Your task to perform on an android device: set the stopwatch Image 0: 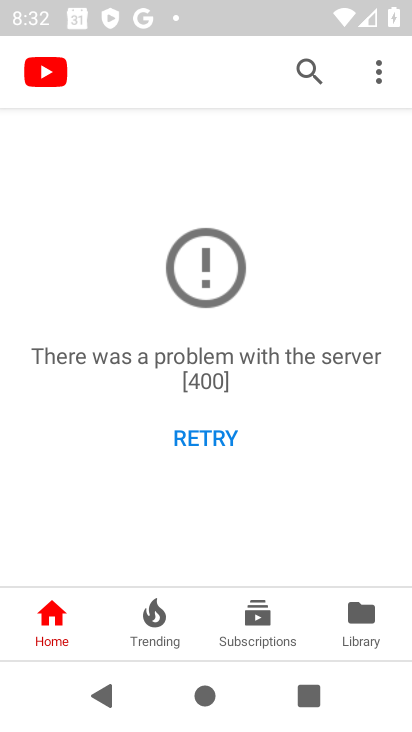
Step 0: press home button
Your task to perform on an android device: set the stopwatch Image 1: 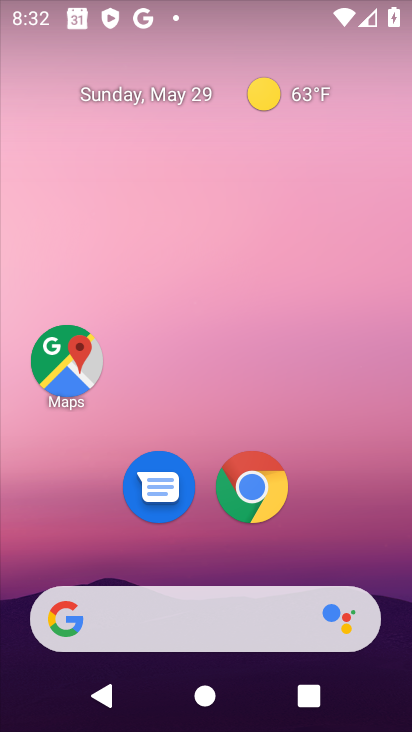
Step 1: drag from (319, 536) to (284, 103)
Your task to perform on an android device: set the stopwatch Image 2: 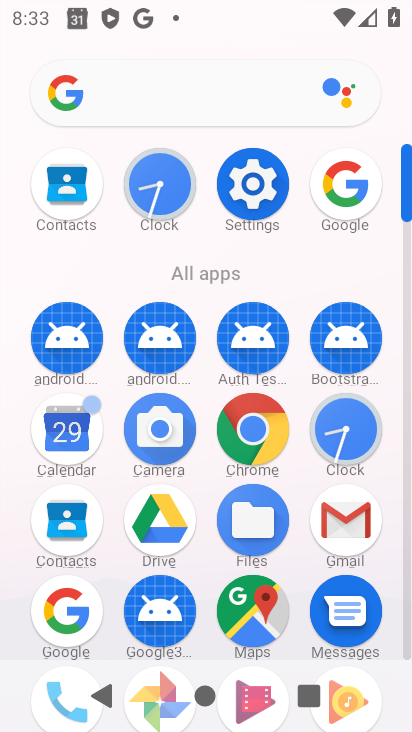
Step 2: click (162, 183)
Your task to perform on an android device: set the stopwatch Image 3: 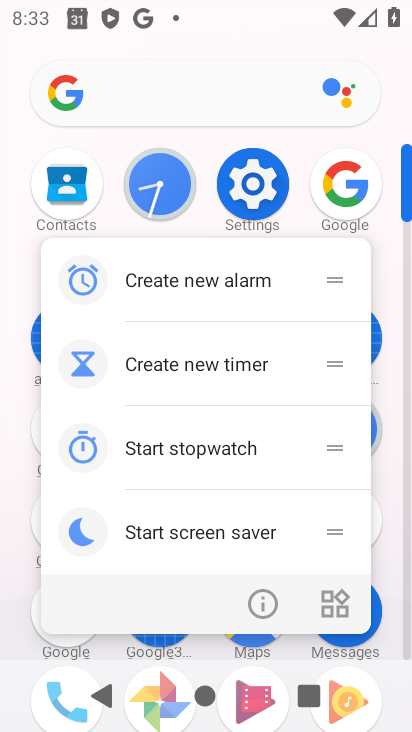
Step 3: click (161, 186)
Your task to perform on an android device: set the stopwatch Image 4: 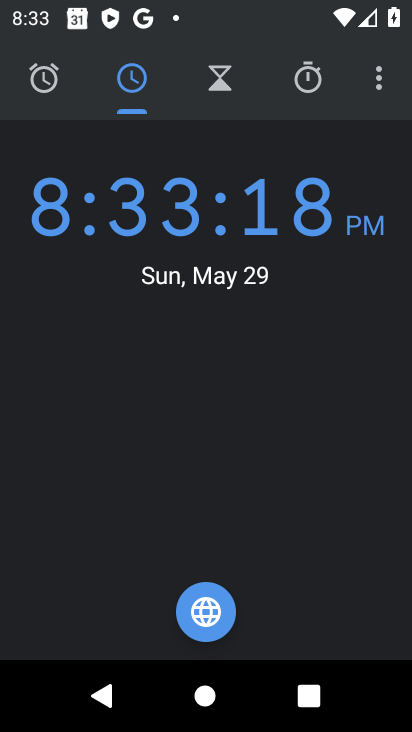
Step 4: click (311, 84)
Your task to perform on an android device: set the stopwatch Image 5: 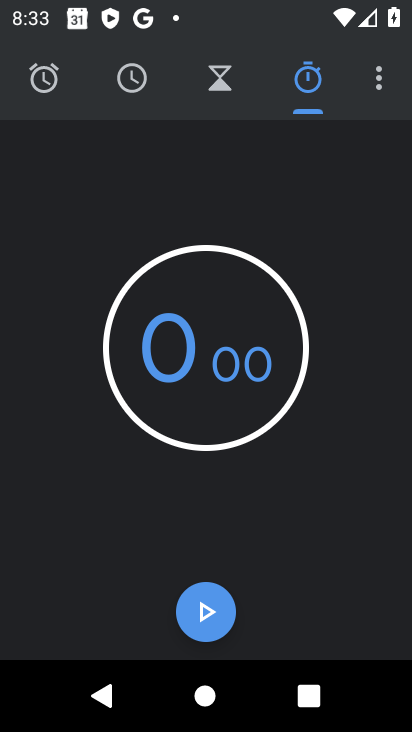
Step 5: click (213, 612)
Your task to perform on an android device: set the stopwatch Image 6: 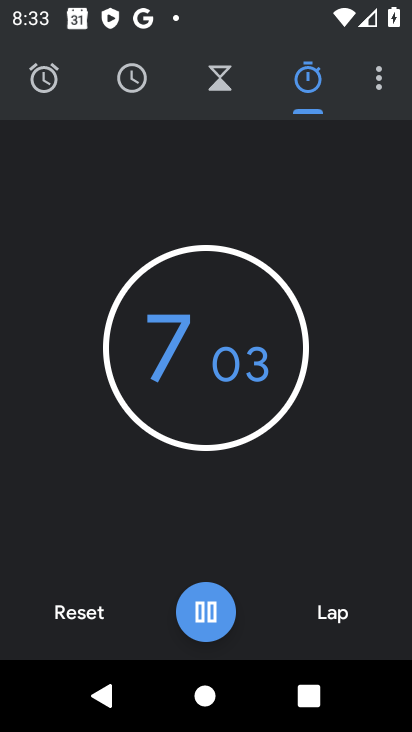
Step 6: click (213, 612)
Your task to perform on an android device: set the stopwatch Image 7: 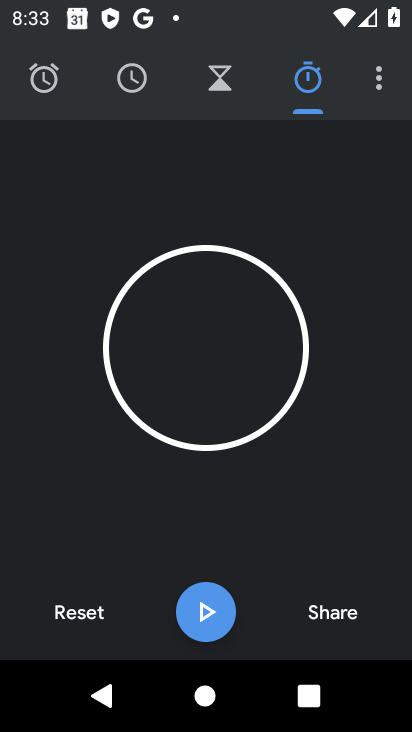
Step 7: task complete